Your task to perform on an android device: turn off location Image 0: 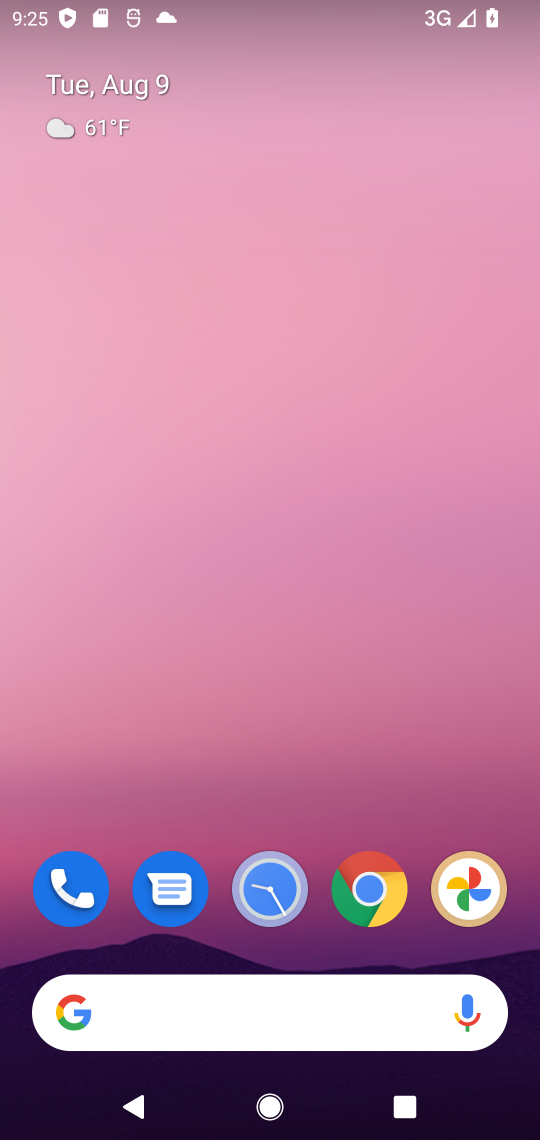
Step 0: drag from (280, 754) to (297, 1)
Your task to perform on an android device: turn off location Image 1: 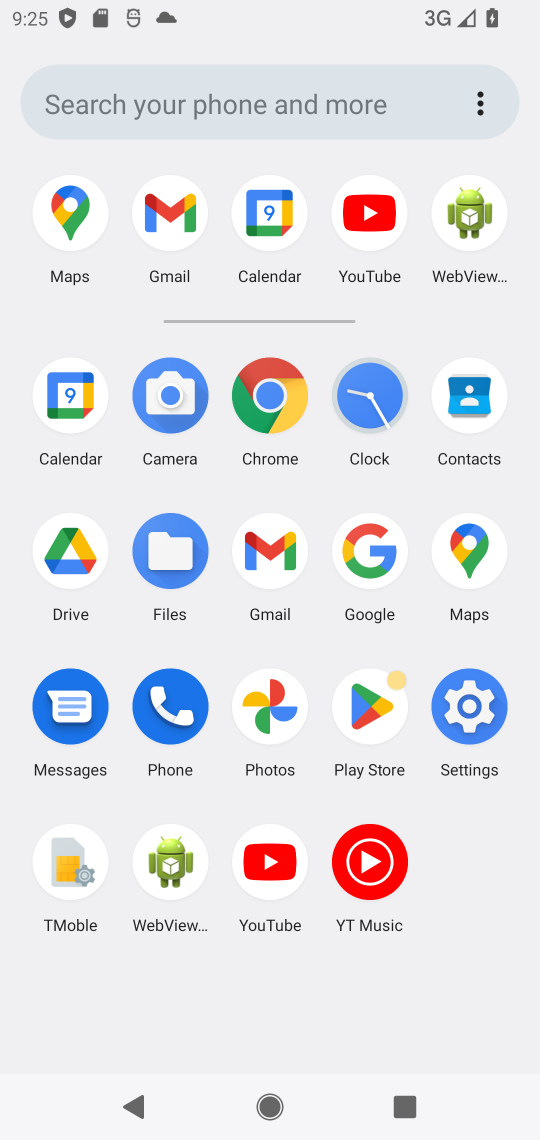
Step 1: click (457, 726)
Your task to perform on an android device: turn off location Image 2: 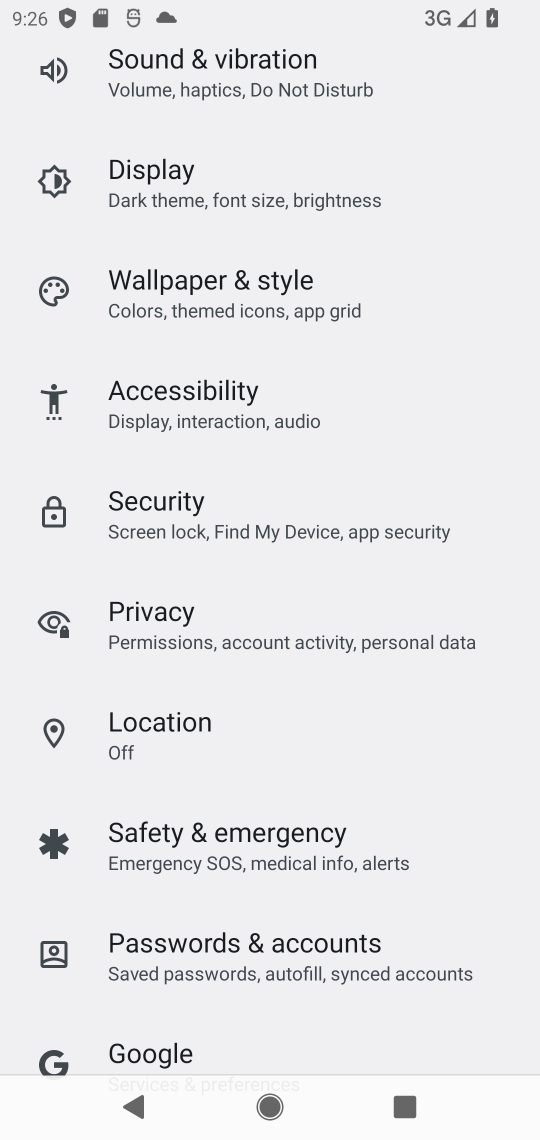
Step 2: click (155, 729)
Your task to perform on an android device: turn off location Image 3: 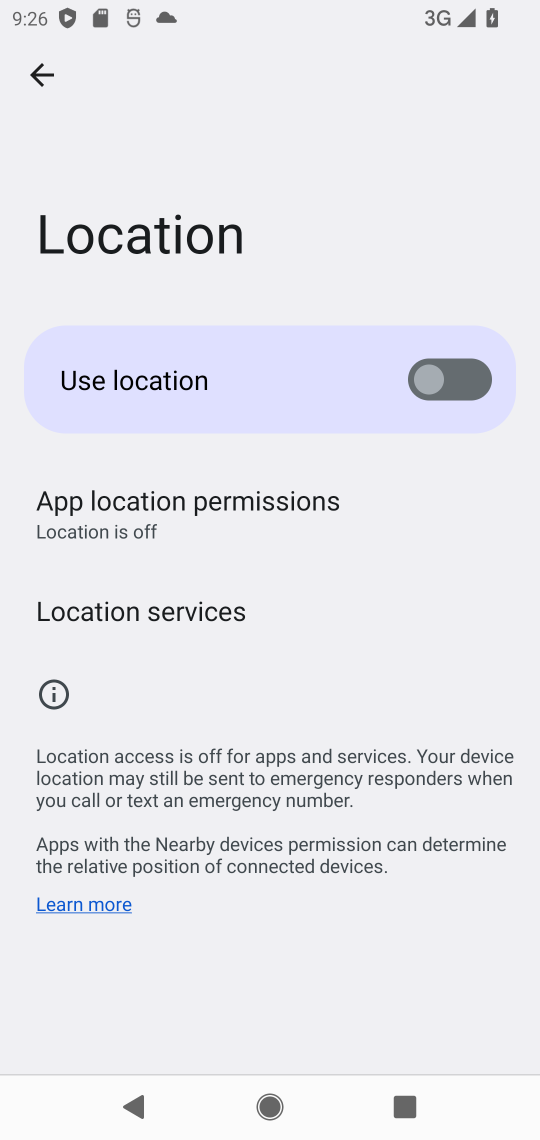
Step 3: task complete